Your task to perform on an android device: Turn on the flashlight Image 0: 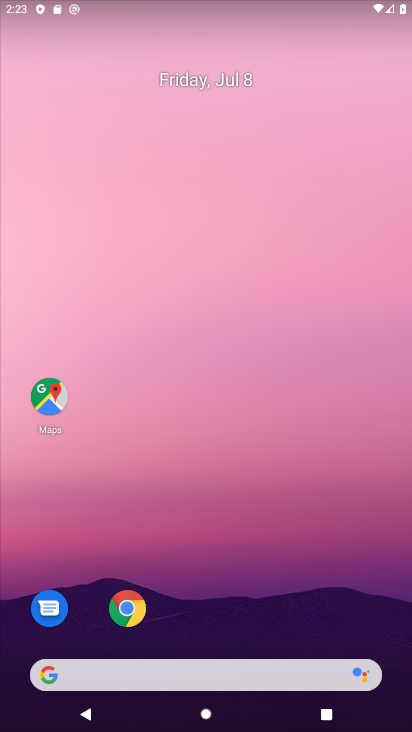
Step 0: drag from (217, 636) to (252, 112)
Your task to perform on an android device: Turn on the flashlight Image 1: 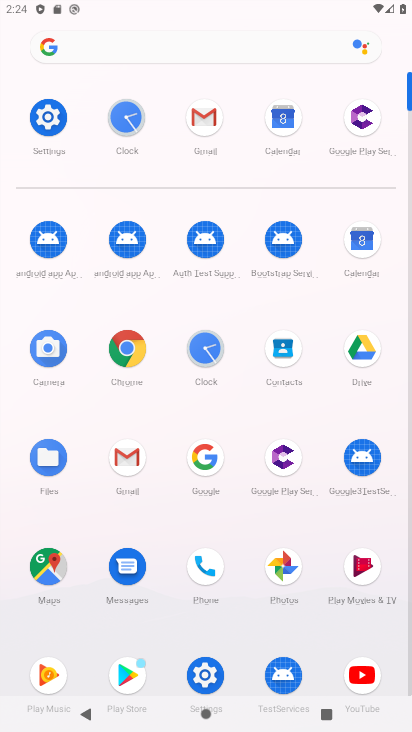
Step 1: click (49, 118)
Your task to perform on an android device: Turn on the flashlight Image 2: 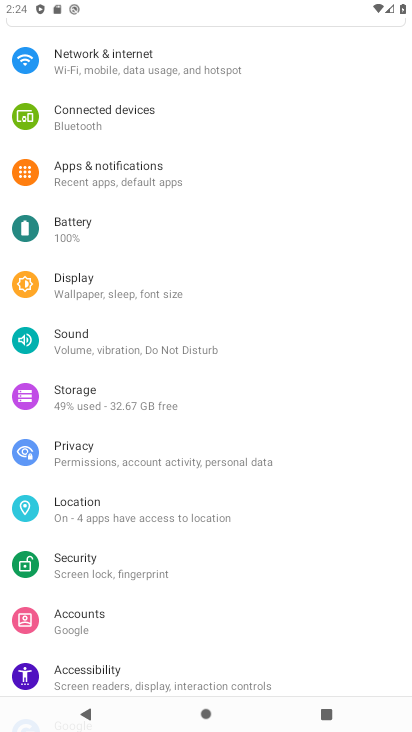
Step 2: drag from (194, 111) to (241, 484)
Your task to perform on an android device: Turn on the flashlight Image 3: 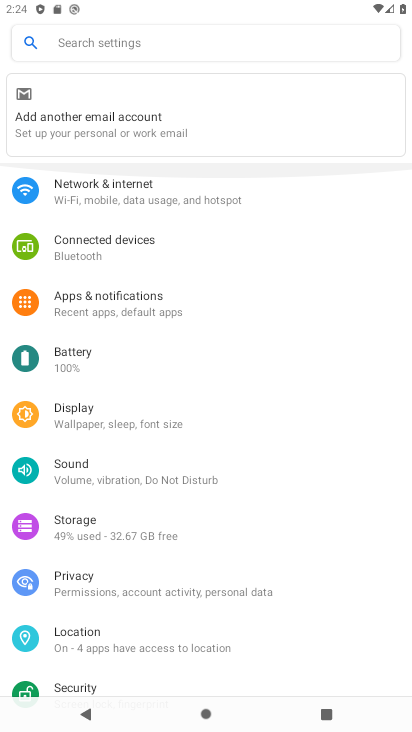
Step 3: click (152, 46)
Your task to perform on an android device: Turn on the flashlight Image 4: 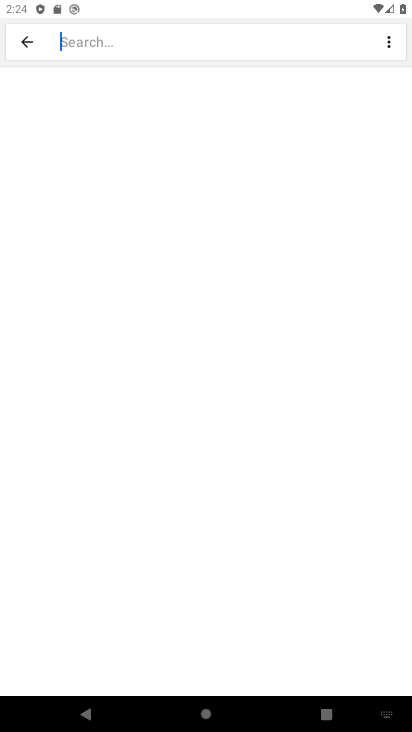
Step 4: type "flashlight"
Your task to perform on an android device: Turn on the flashlight Image 5: 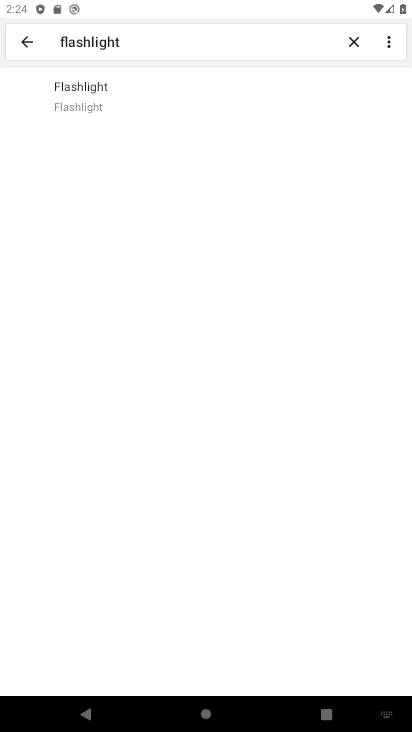
Step 5: task complete